Your task to perform on an android device: Search for Mexican restaurants on Maps Image 0: 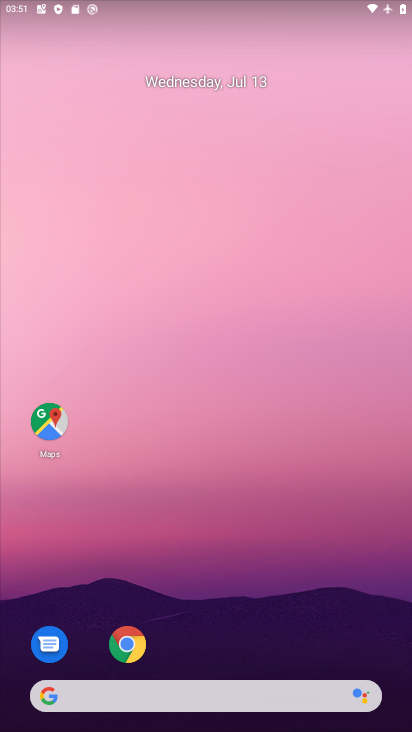
Step 0: drag from (272, 449) to (393, 312)
Your task to perform on an android device: Search for Mexican restaurants on Maps Image 1: 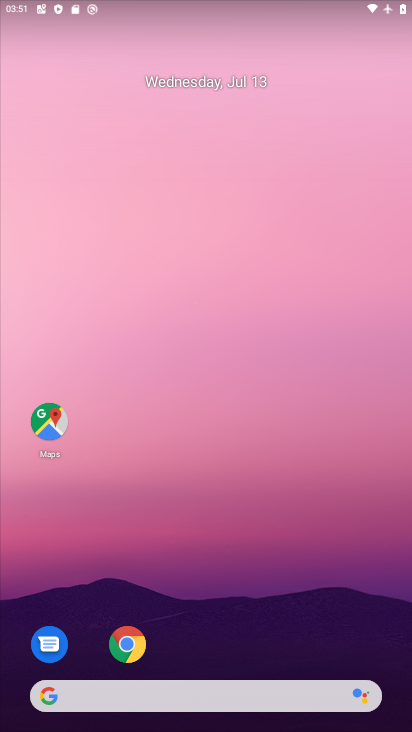
Step 1: drag from (245, 624) to (250, 146)
Your task to perform on an android device: Search for Mexican restaurants on Maps Image 2: 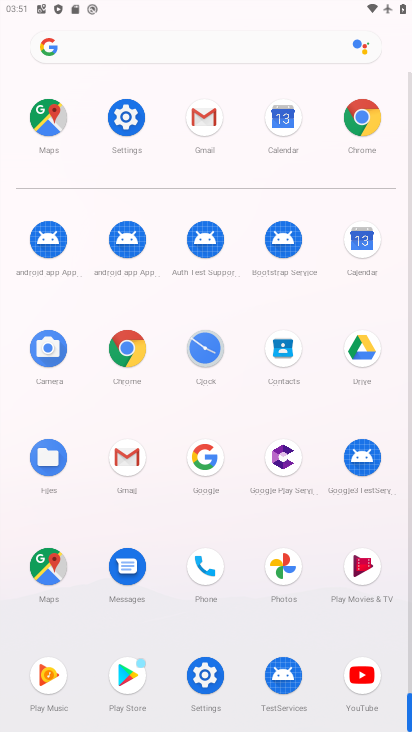
Step 2: click (45, 120)
Your task to perform on an android device: Search for Mexican restaurants on Maps Image 3: 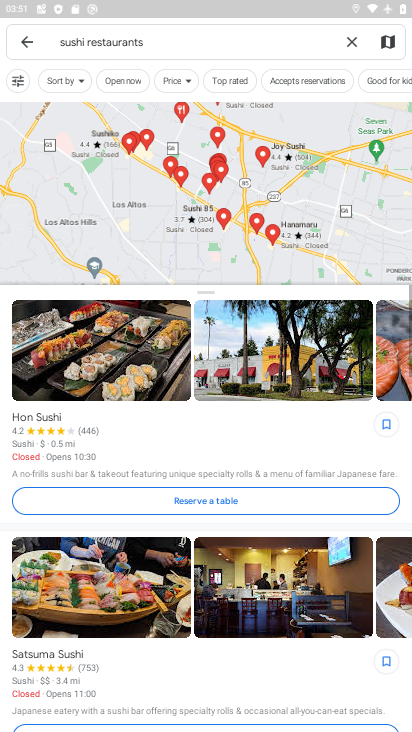
Step 3: click (237, 48)
Your task to perform on an android device: Search for Mexican restaurants on Maps Image 4: 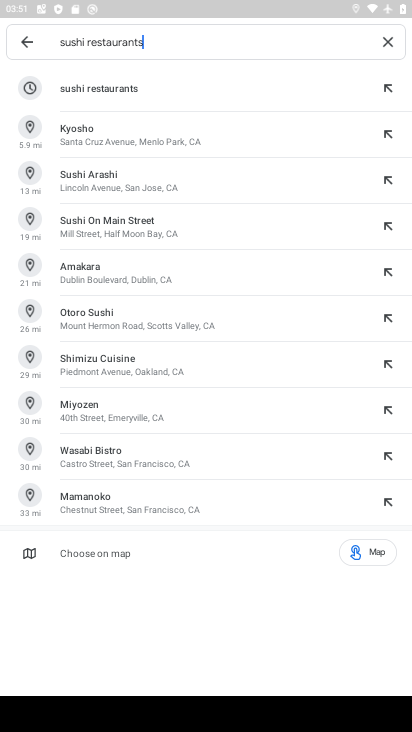
Step 4: click (394, 40)
Your task to perform on an android device: Search for Mexican restaurants on Maps Image 5: 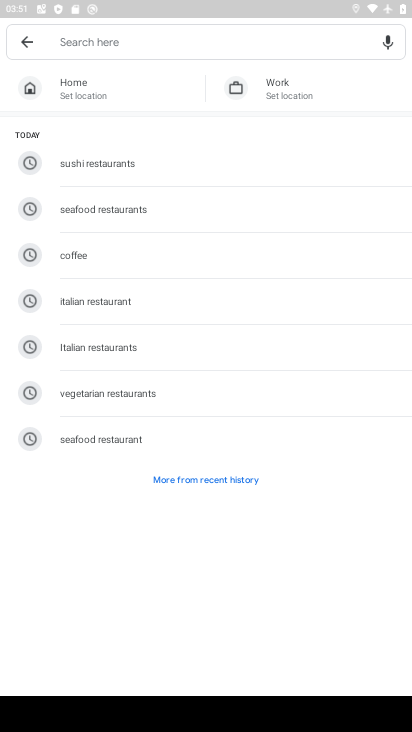
Step 5: type "Mexican restaurants"
Your task to perform on an android device: Search for Mexican restaurants on Maps Image 6: 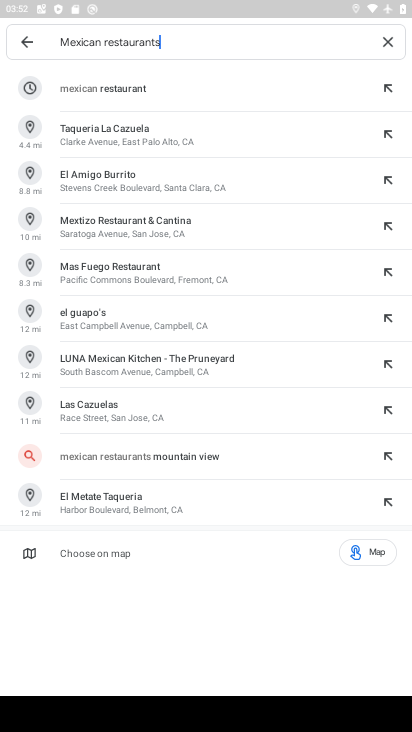
Step 6: press enter
Your task to perform on an android device: Search for Mexican restaurants on Maps Image 7: 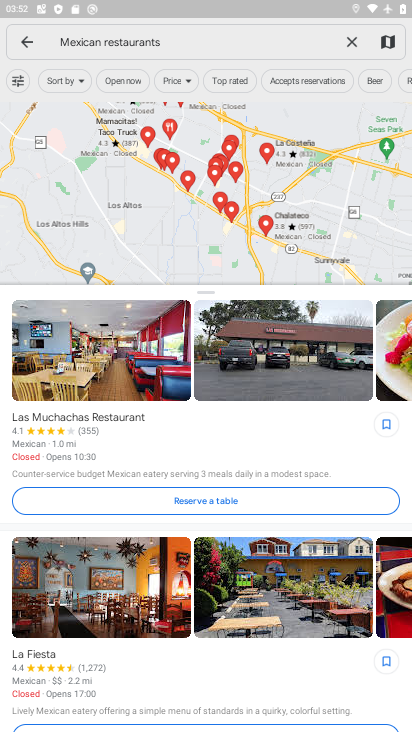
Step 7: task complete